Your task to perform on an android device: turn on javascript in the chrome app Image 0: 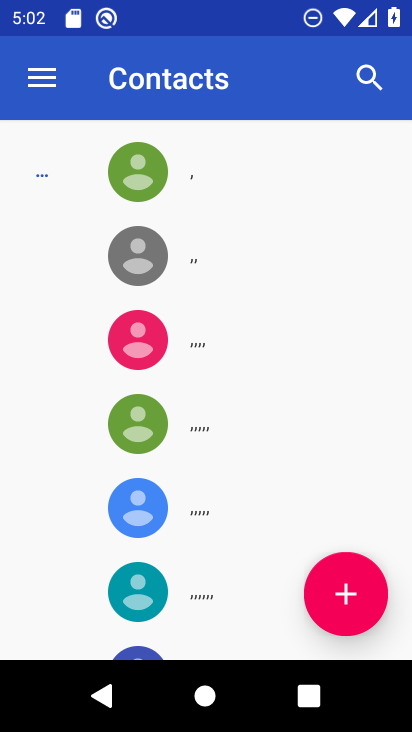
Step 0: press back button
Your task to perform on an android device: turn on javascript in the chrome app Image 1: 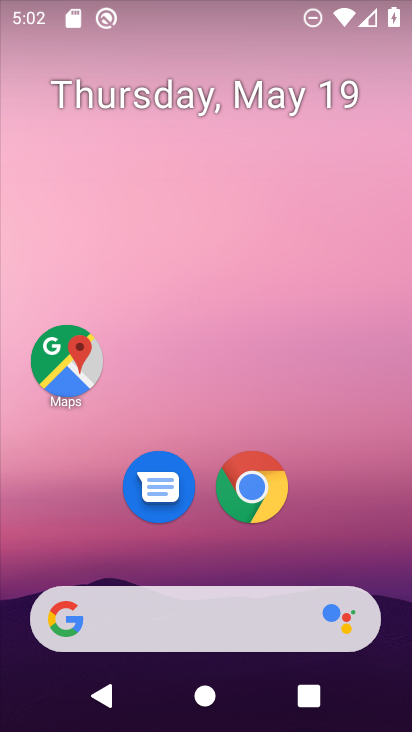
Step 1: click (253, 484)
Your task to perform on an android device: turn on javascript in the chrome app Image 2: 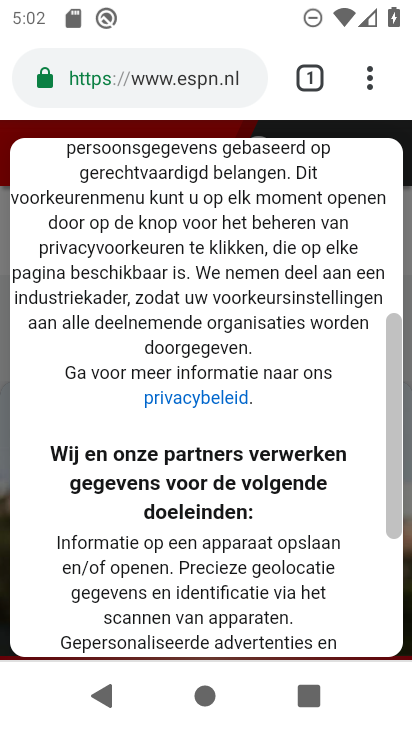
Step 2: click (368, 77)
Your task to perform on an android device: turn on javascript in the chrome app Image 3: 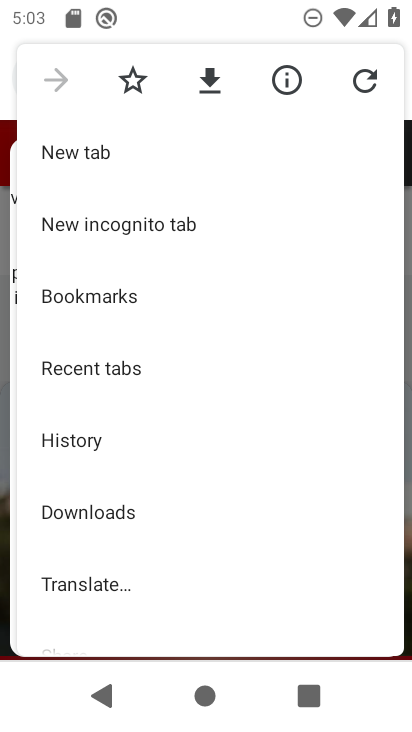
Step 3: drag from (130, 544) to (186, 456)
Your task to perform on an android device: turn on javascript in the chrome app Image 4: 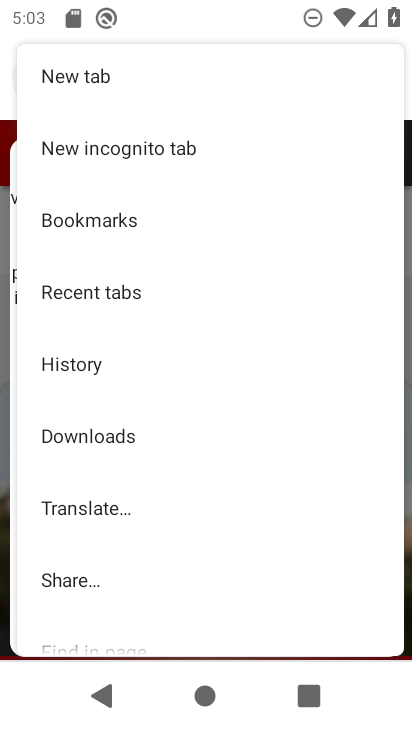
Step 4: drag from (108, 539) to (135, 478)
Your task to perform on an android device: turn on javascript in the chrome app Image 5: 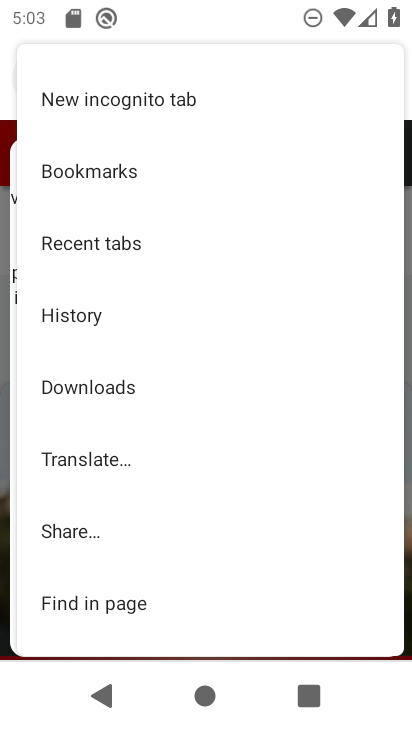
Step 5: drag from (114, 542) to (145, 496)
Your task to perform on an android device: turn on javascript in the chrome app Image 6: 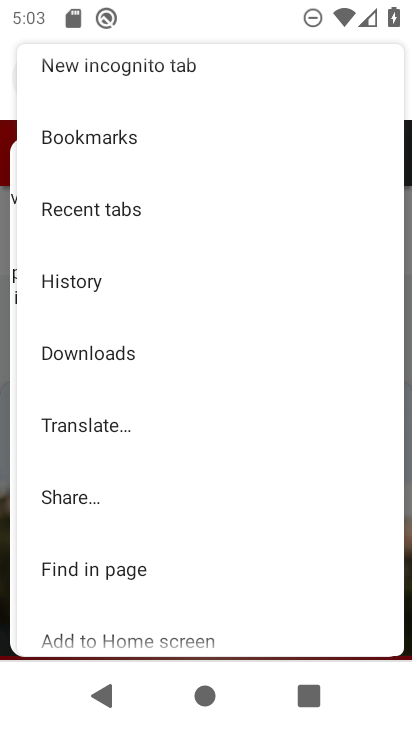
Step 6: drag from (78, 594) to (144, 477)
Your task to perform on an android device: turn on javascript in the chrome app Image 7: 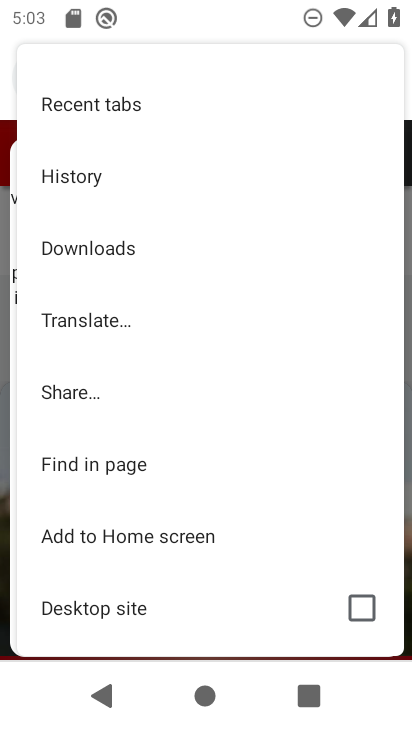
Step 7: drag from (84, 570) to (149, 491)
Your task to perform on an android device: turn on javascript in the chrome app Image 8: 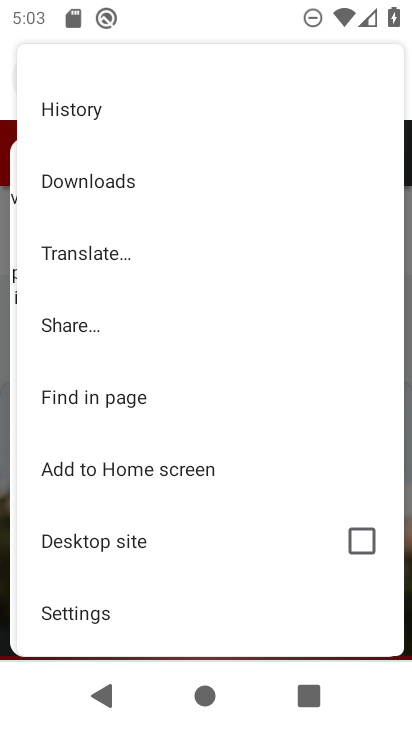
Step 8: drag from (78, 567) to (146, 457)
Your task to perform on an android device: turn on javascript in the chrome app Image 9: 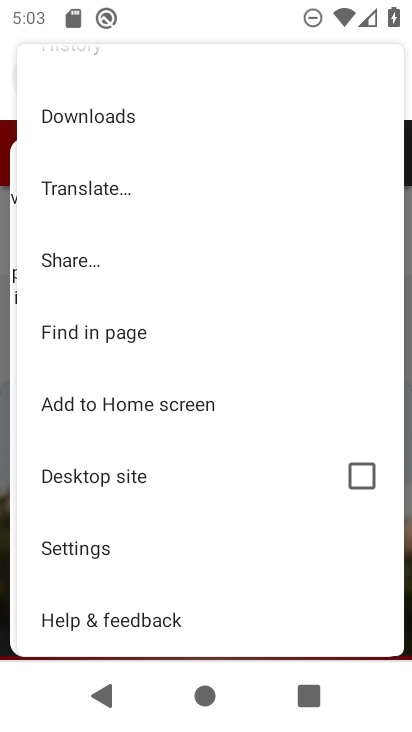
Step 9: click (85, 551)
Your task to perform on an android device: turn on javascript in the chrome app Image 10: 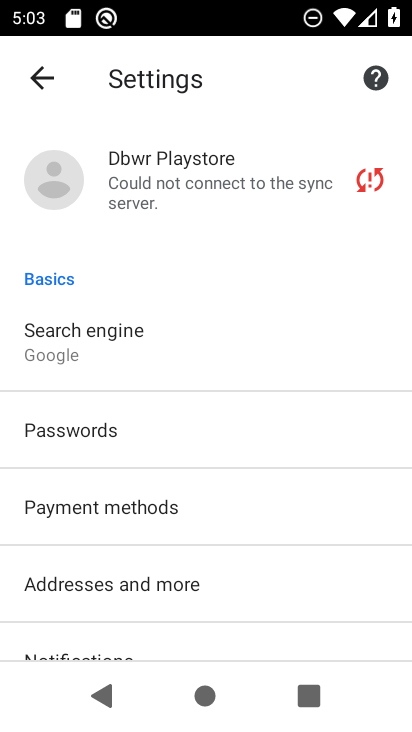
Step 10: drag from (145, 548) to (193, 466)
Your task to perform on an android device: turn on javascript in the chrome app Image 11: 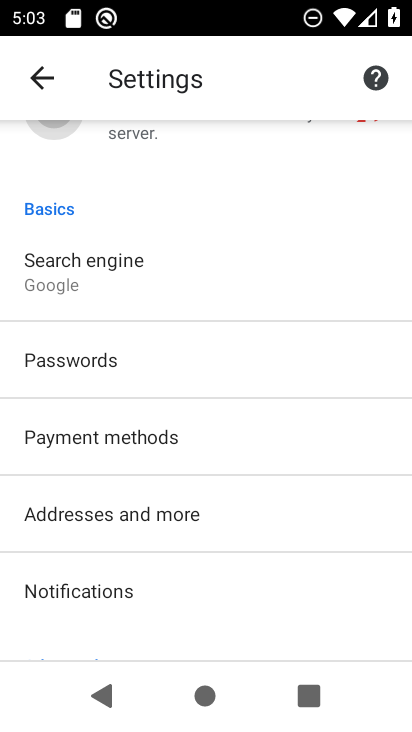
Step 11: drag from (121, 564) to (196, 485)
Your task to perform on an android device: turn on javascript in the chrome app Image 12: 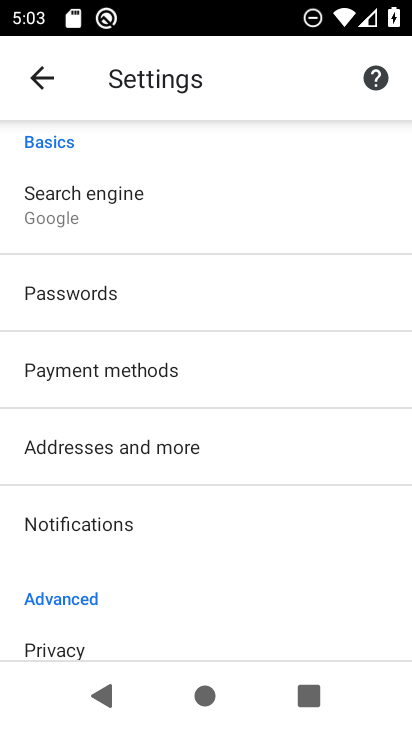
Step 12: drag from (96, 558) to (153, 483)
Your task to perform on an android device: turn on javascript in the chrome app Image 13: 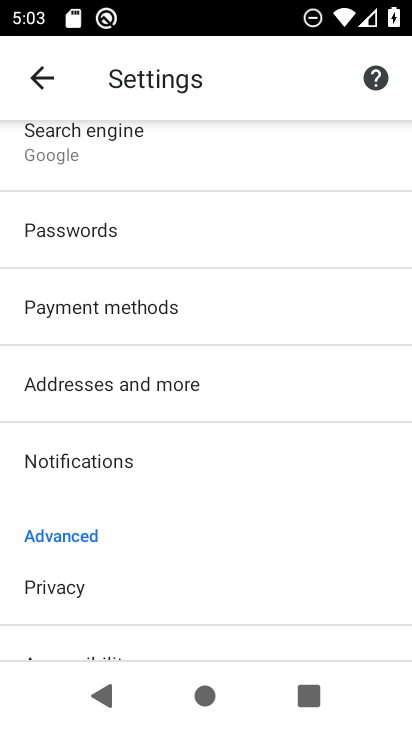
Step 13: drag from (106, 558) to (165, 481)
Your task to perform on an android device: turn on javascript in the chrome app Image 14: 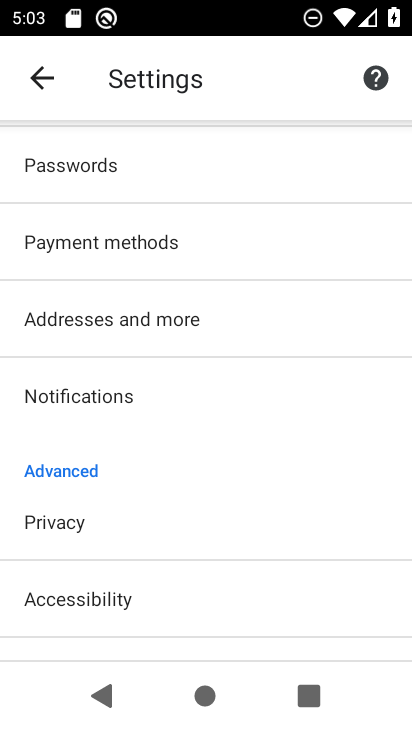
Step 14: drag from (113, 544) to (146, 475)
Your task to perform on an android device: turn on javascript in the chrome app Image 15: 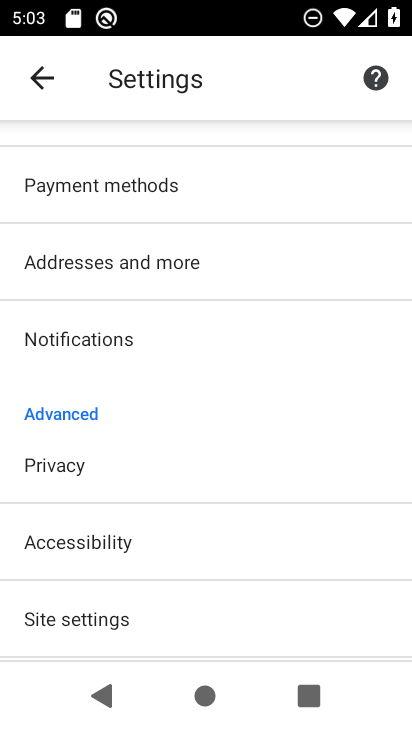
Step 15: click (97, 621)
Your task to perform on an android device: turn on javascript in the chrome app Image 16: 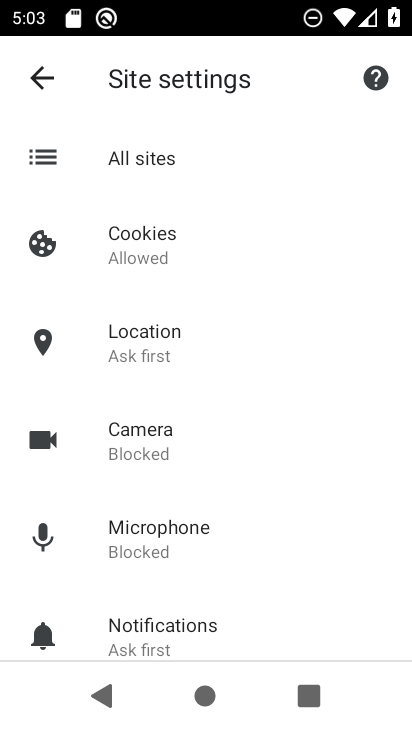
Step 16: drag from (165, 478) to (199, 424)
Your task to perform on an android device: turn on javascript in the chrome app Image 17: 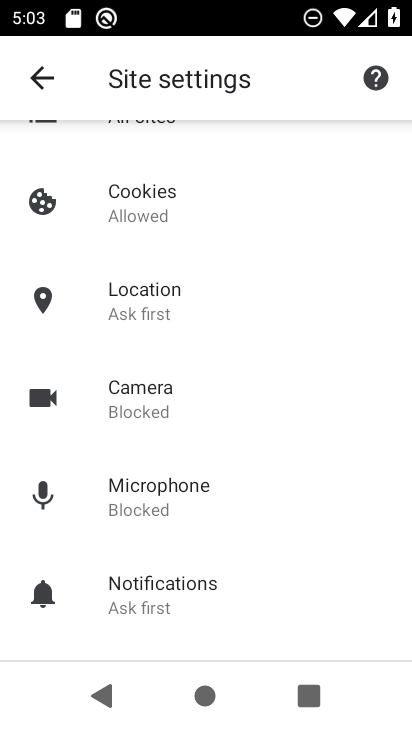
Step 17: drag from (162, 516) to (192, 438)
Your task to perform on an android device: turn on javascript in the chrome app Image 18: 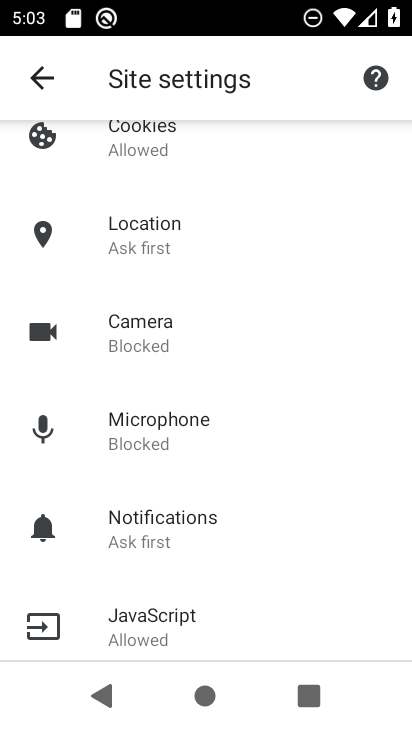
Step 18: drag from (151, 551) to (177, 476)
Your task to perform on an android device: turn on javascript in the chrome app Image 19: 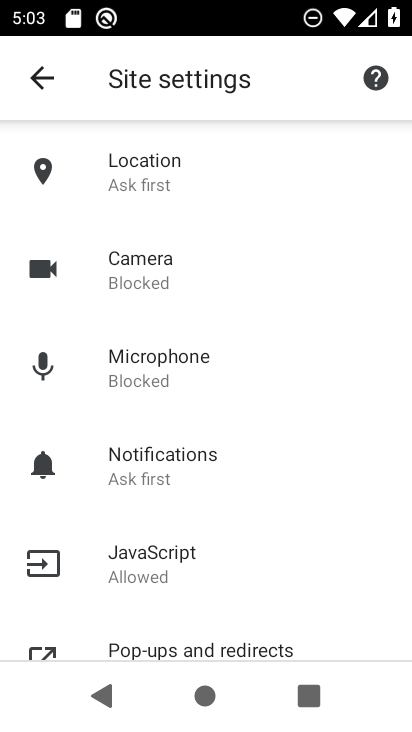
Step 19: drag from (135, 589) to (172, 486)
Your task to perform on an android device: turn on javascript in the chrome app Image 20: 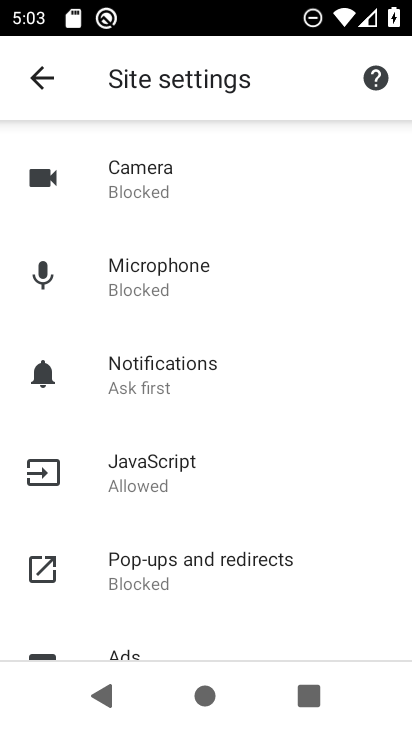
Step 20: click (149, 476)
Your task to perform on an android device: turn on javascript in the chrome app Image 21: 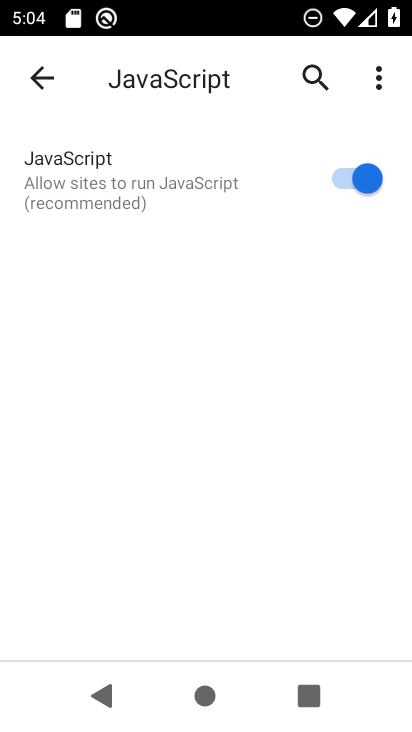
Step 21: task complete